Your task to perform on an android device: change the clock display to digital Image 0: 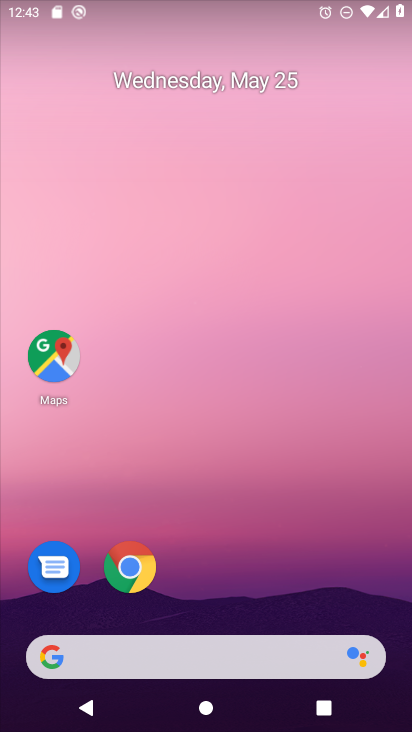
Step 0: drag from (394, 638) to (340, 316)
Your task to perform on an android device: change the clock display to digital Image 1: 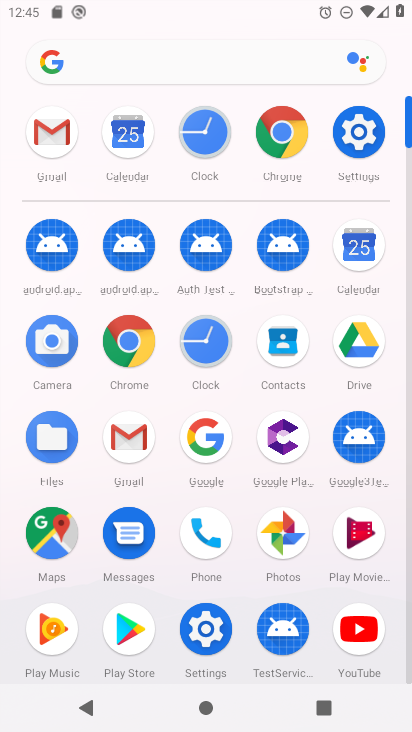
Step 1: click (190, 330)
Your task to perform on an android device: change the clock display to digital Image 2: 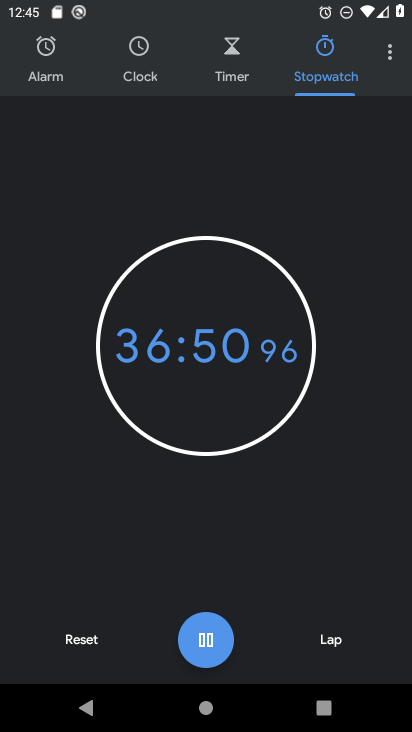
Step 2: click (389, 56)
Your task to perform on an android device: change the clock display to digital Image 3: 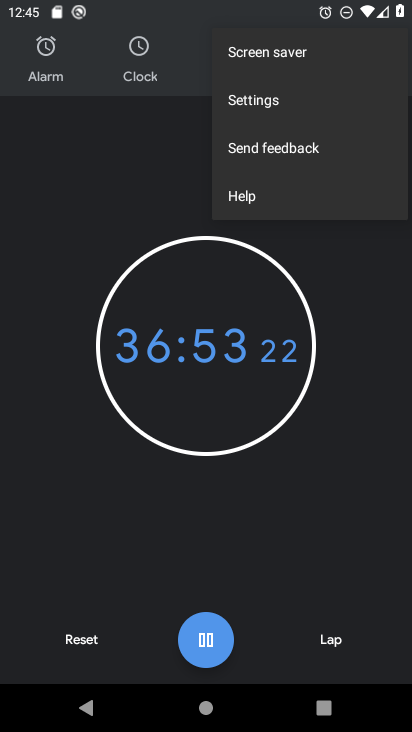
Step 3: click (258, 94)
Your task to perform on an android device: change the clock display to digital Image 4: 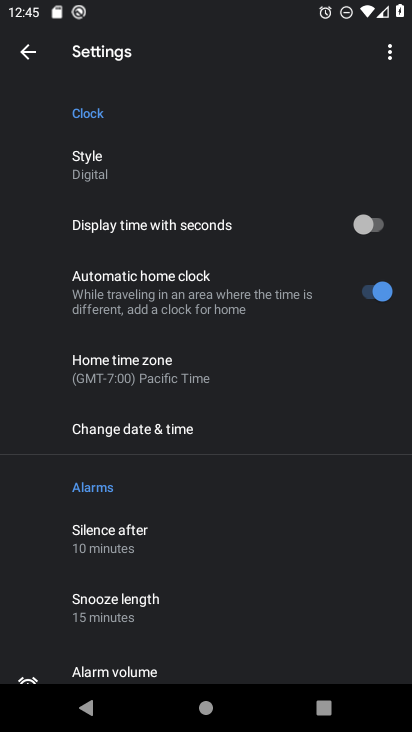
Step 4: task complete